Your task to perform on an android device: Go to CNN.com Image 0: 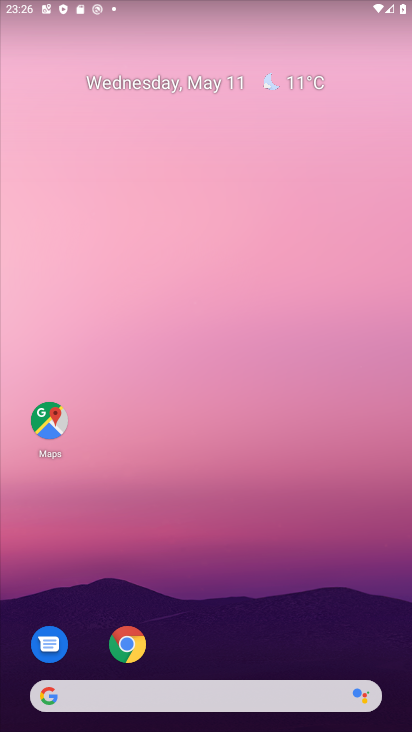
Step 0: click (132, 641)
Your task to perform on an android device: Go to CNN.com Image 1: 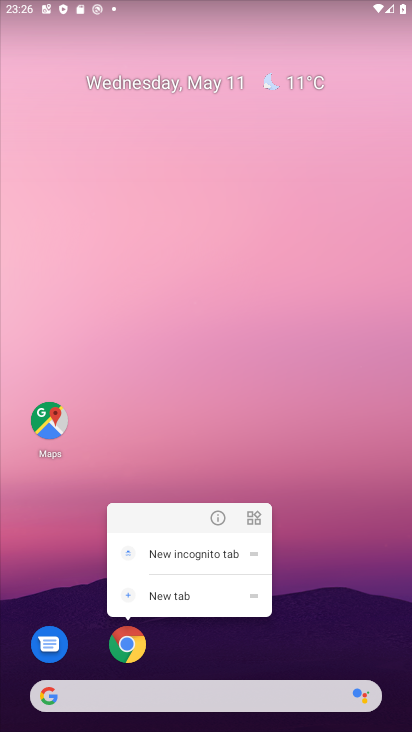
Step 1: click (132, 641)
Your task to perform on an android device: Go to CNN.com Image 2: 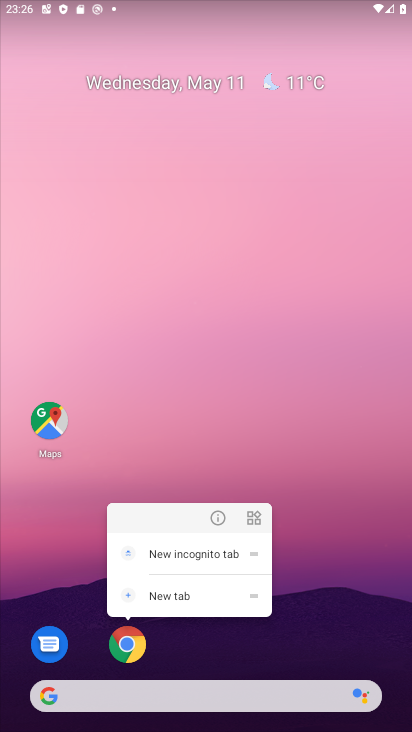
Step 2: click (128, 641)
Your task to perform on an android device: Go to CNN.com Image 3: 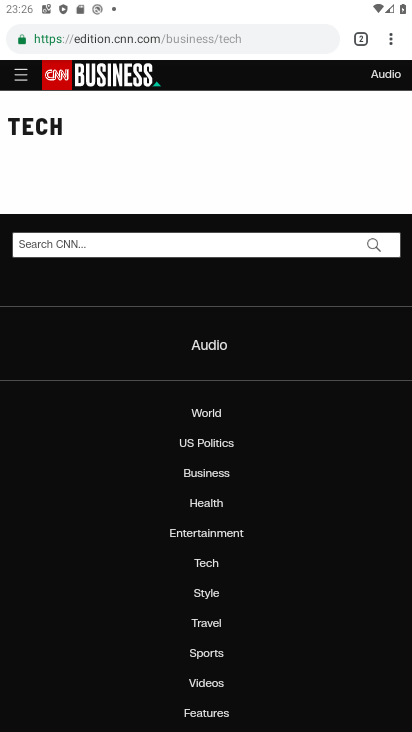
Step 3: task complete